Your task to perform on an android device: visit the assistant section in the google photos Image 0: 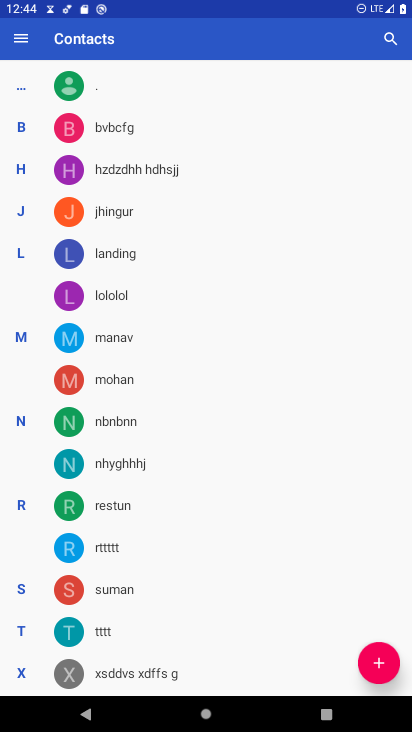
Step 0: press home button
Your task to perform on an android device: visit the assistant section in the google photos Image 1: 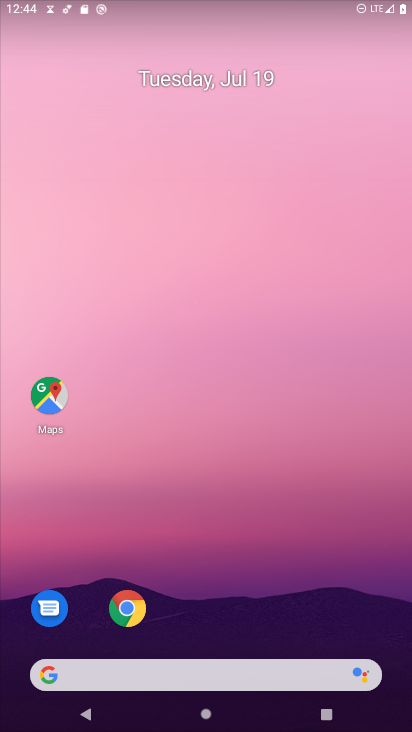
Step 1: drag from (317, 658) to (134, 37)
Your task to perform on an android device: visit the assistant section in the google photos Image 2: 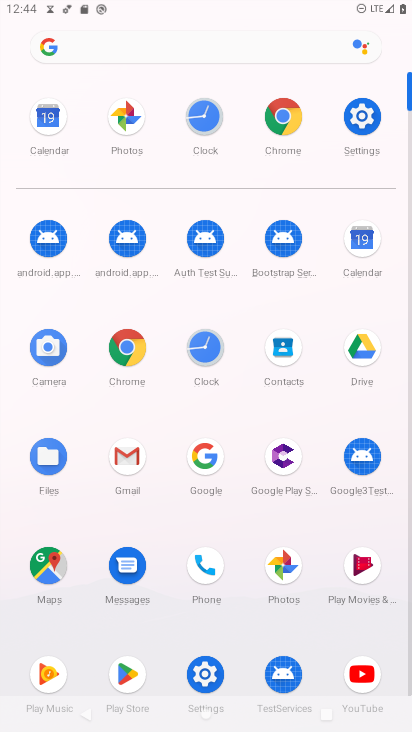
Step 2: click (283, 554)
Your task to perform on an android device: visit the assistant section in the google photos Image 3: 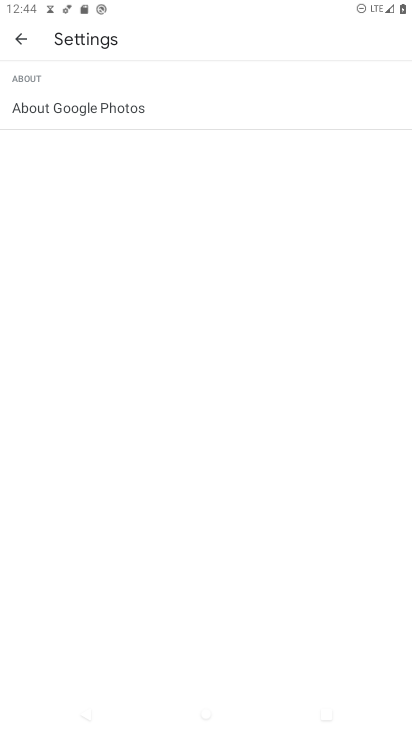
Step 3: press back button
Your task to perform on an android device: visit the assistant section in the google photos Image 4: 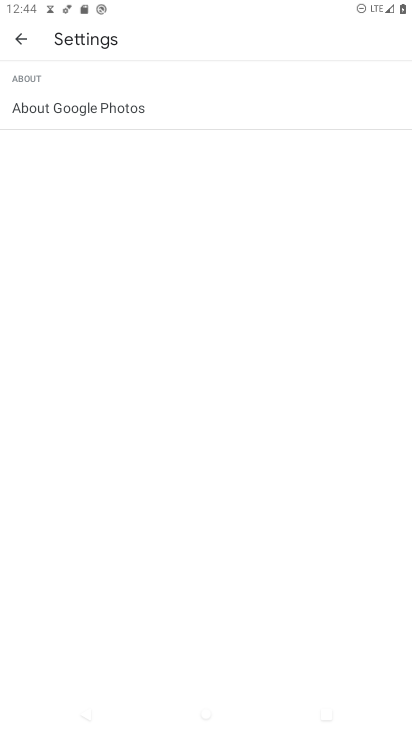
Step 4: press back button
Your task to perform on an android device: visit the assistant section in the google photos Image 5: 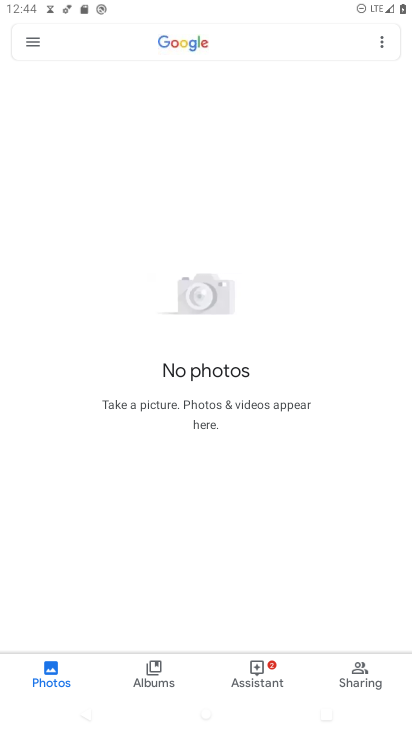
Step 5: click (257, 669)
Your task to perform on an android device: visit the assistant section in the google photos Image 6: 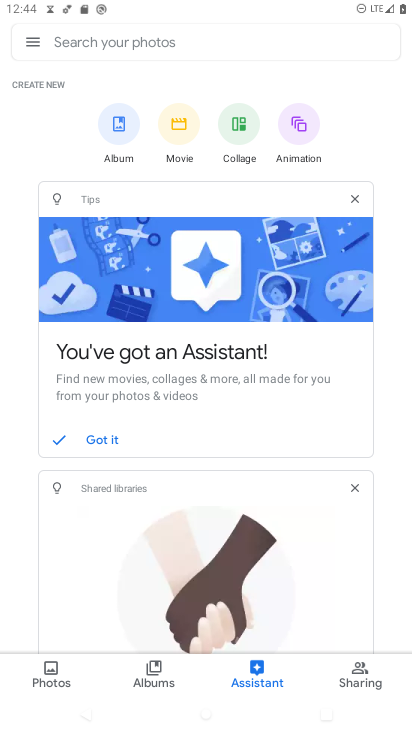
Step 6: task complete